Your task to perform on an android device: toggle improve location accuracy Image 0: 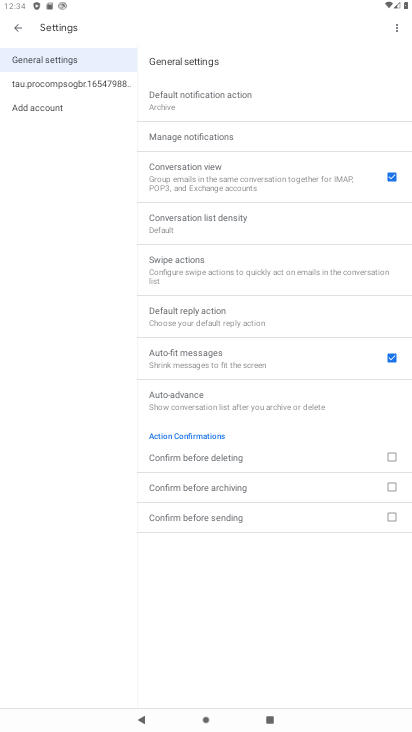
Step 0: press home button
Your task to perform on an android device: toggle improve location accuracy Image 1: 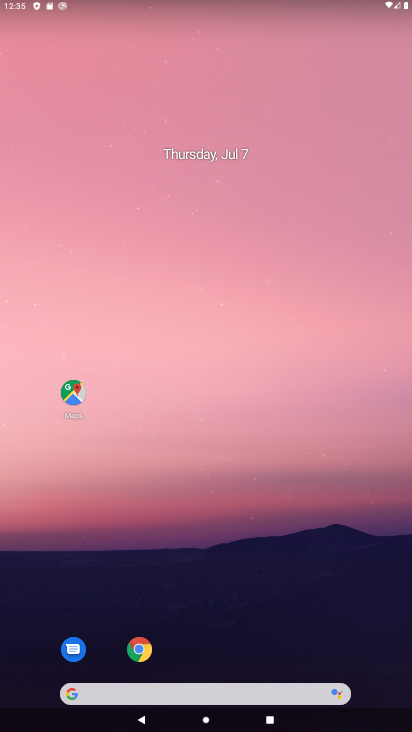
Step 1: drag from (204, 636) to (165, 15)
Your task to perform on an android device: toggle improve location accuracy Image 2: 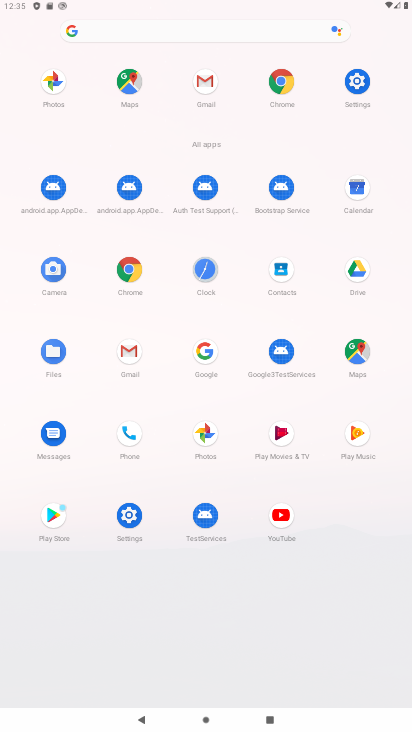
Step 2: click (129, 518)
Your task to perform on an android device: toggle improve location accuracy Image 3: 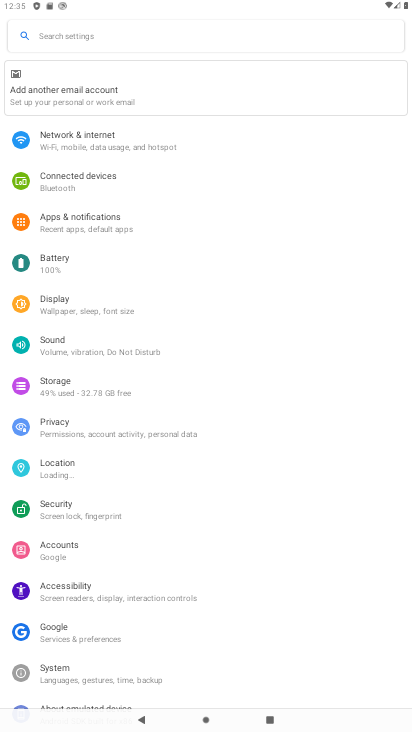
Step 3: click (112, 525)
Your task to perform on an android device: toggle improve location accuracy Image 4: 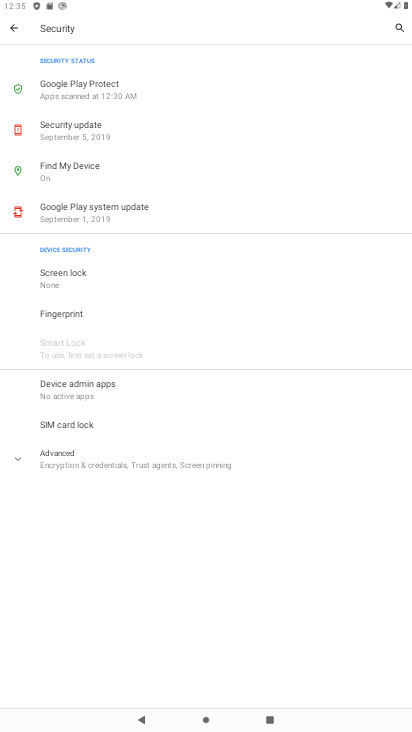
Step 4: click (109, 454)
Your task to perform on an android device: toggle improve location accuracy Image 5: 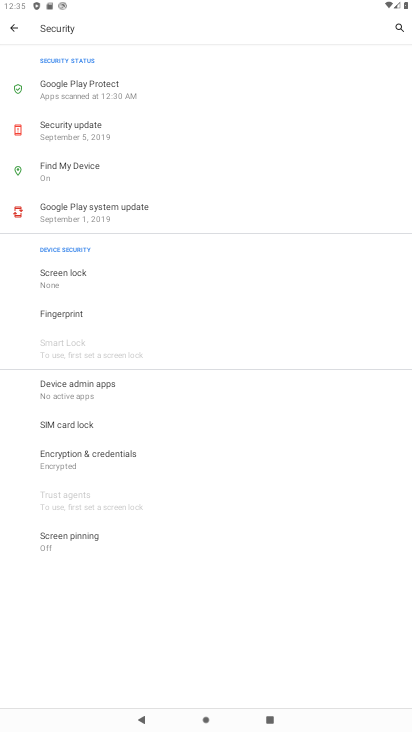
Step 5: click (13, 28)
Your task to perform on an android device: toggle improve location accuracy Image 6: 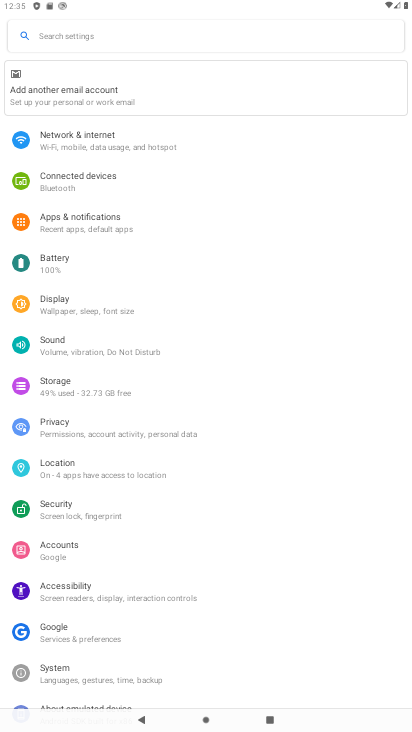
Step 6: click (93, 484)
Your task to perform on an android device: toggle improve location accuracy Image 7: 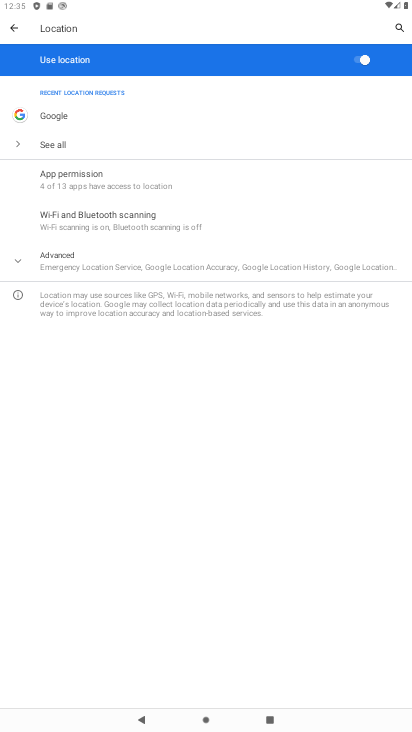
Step 7: task complete